Your task to perform on an android device: move a message to another label in the gmail app Image 0: 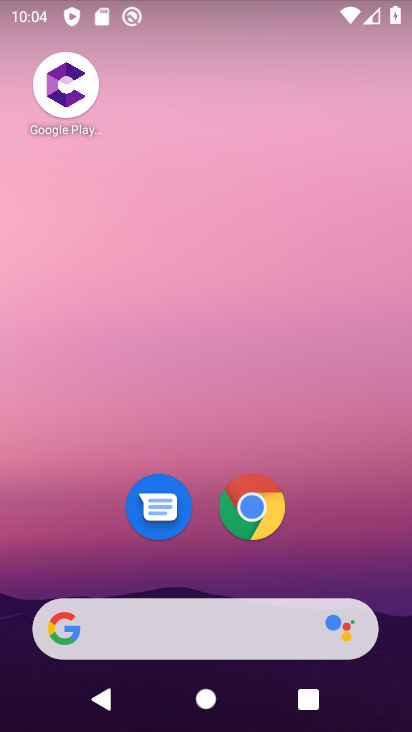
Step 0: drag from (201, 578) to (205, 4)
Your task to perform on an android device: move a message to another label in the gmail app Image 1: 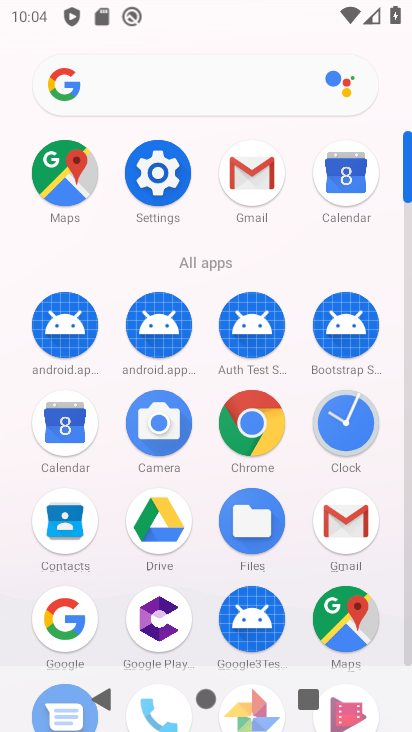
Step 1: click (344, 514)
Your task to perform on an android device: move a message to another label in the gmail app Image 2: 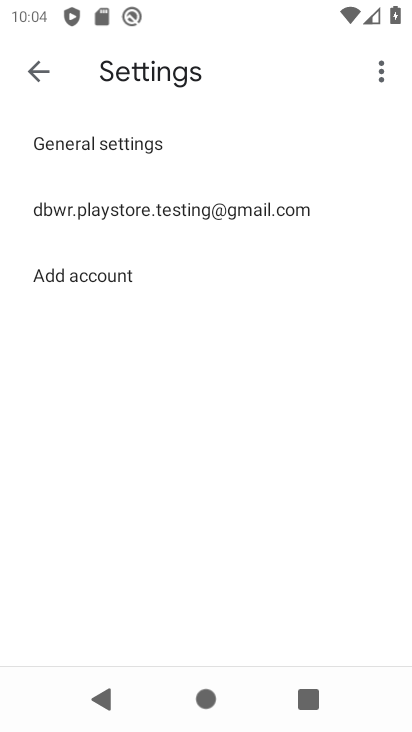
Step 2: click (35, 70)
Your task to perform on an android device: move a message to another label in the gmail app Image 3: 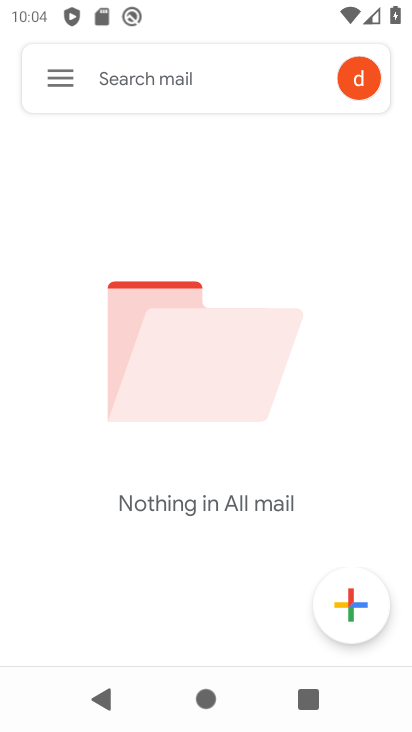
Step 3: click (54, 73)
Your task to perform on an android device: move a message to another label in the gmail app Image 4: 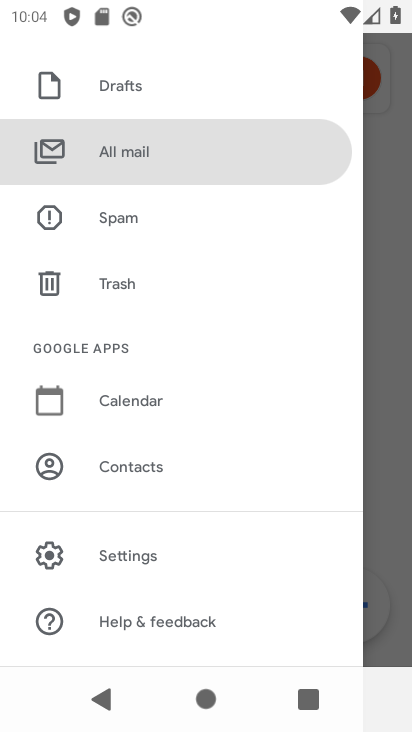
Step 4: click (105, 146)
Your task to perform on an android device: move a message to another label in the gmail app Image 5: 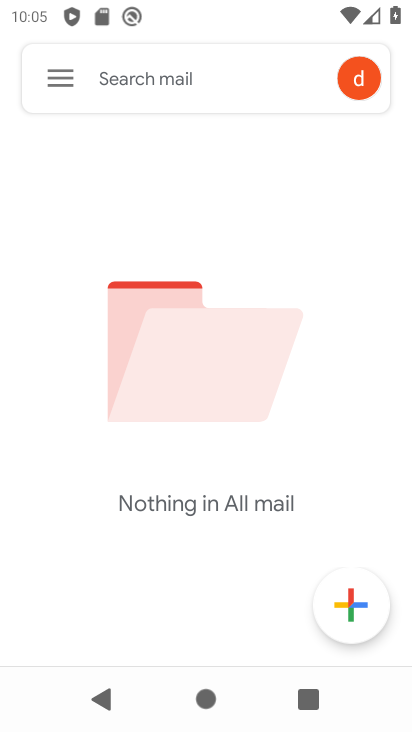
Step 5: task complete